Your task to perform on an android device: turn on notifications settings in the gmail app Image 0: 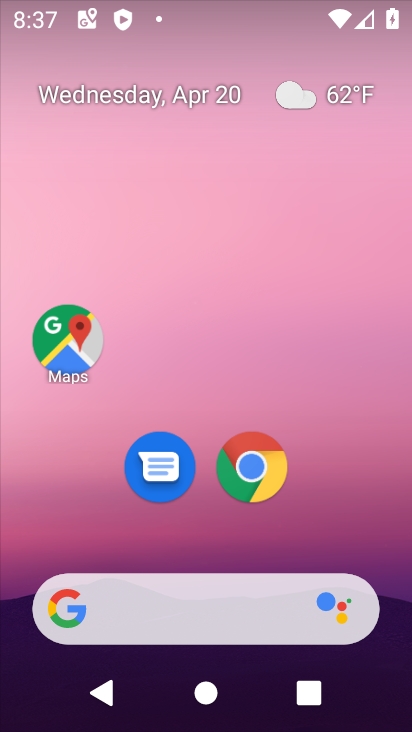
Step 0: drag from (254, 679) to (202, 230)
Your task to perform on an android device: turn on notifications settings in the gmail app Image 1: 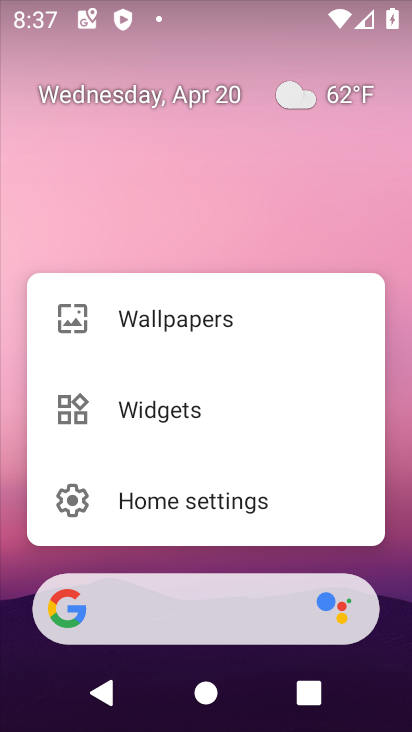
Step 1: click (223, 216)
Your task to perform on an android device: turn on notifications settings in the gmail app Image 2: 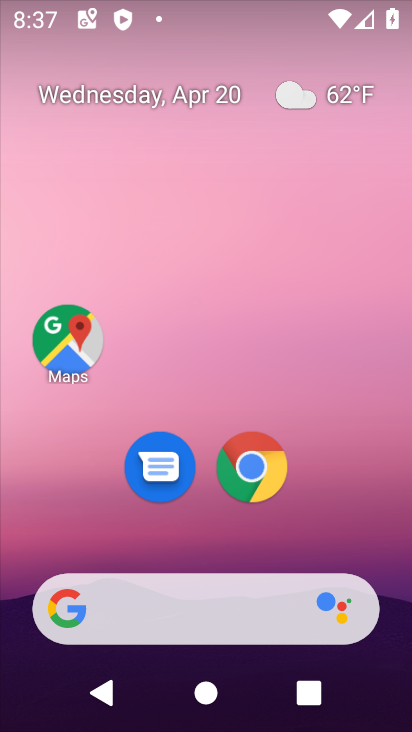
Step 2: drag from (319, 435) to (236, 5)
Your task to perform on an android device: turn on notifications settings in the gmail app Image 3: 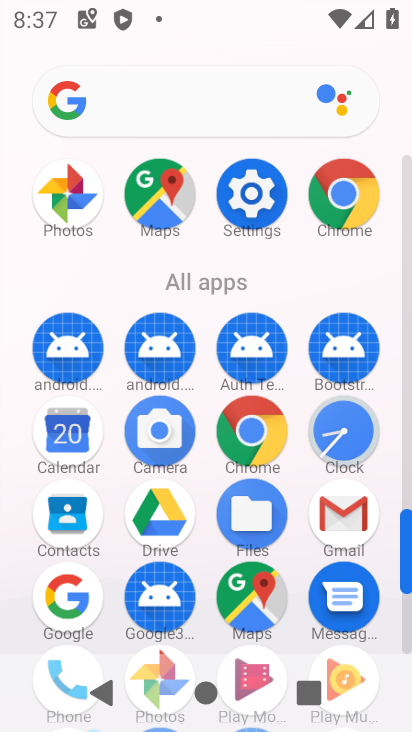
Step 3: click (351, 499)
Your task to perform on an android device: turn on notifications settings in the gmail app Image 4: 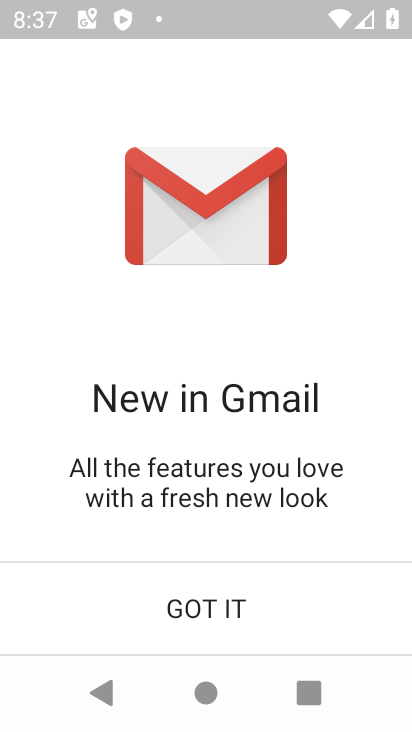
Step 4: click (229, 600)
Your task to perform on an android device: turn on notifications settings in the gmail app Image 5: 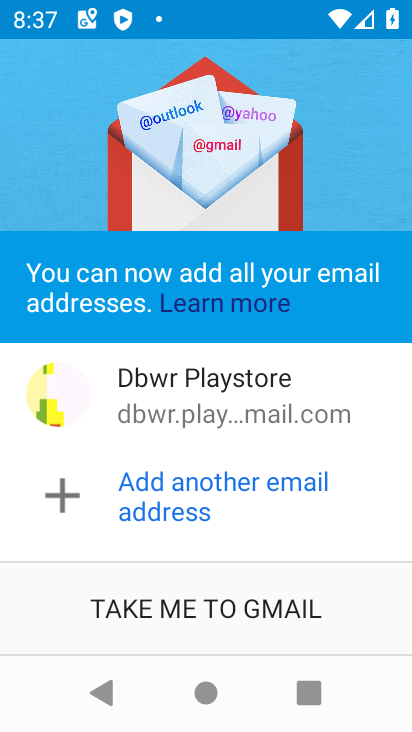
Step 5: click (223, 598)
Your task to perform on an android device: turn on notifications settings in the gmail app Image 6: 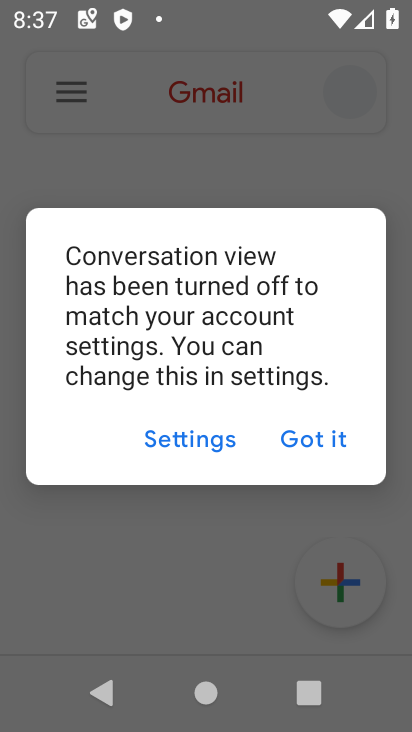
Step 6: click (233, 610)
Your task to perform on an android device: turn on notifications settings in the gmail app Image 7: 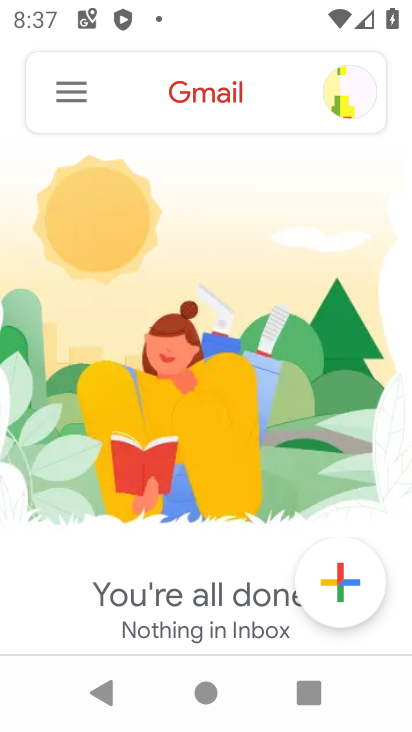
Step 7: click (303, 442)
Your task to perform on an android device: turn on notifications settings in the gmail app Image 8: 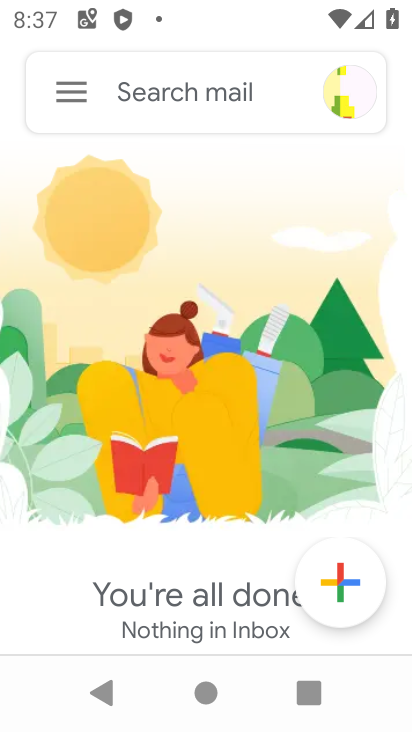
Step 8: click (73, 84)
Your task to perform on an android device: turn on notifications settings in the gmail app Image 9: 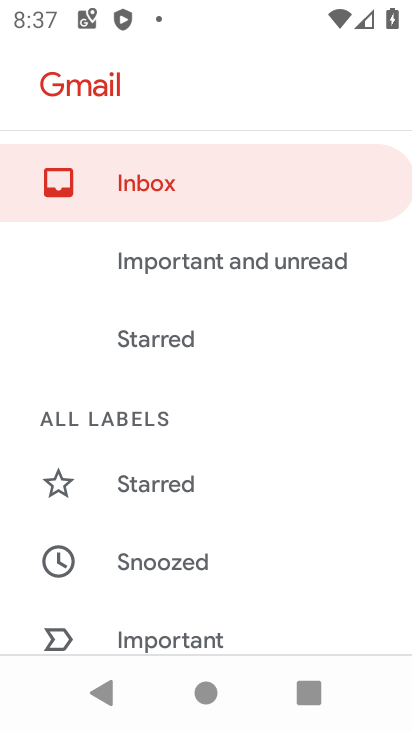
Step 9: drag from (168, 581) to (86, 72)
Your task to perform on an android device: turn on notifications settings in the gmail app Image 10: 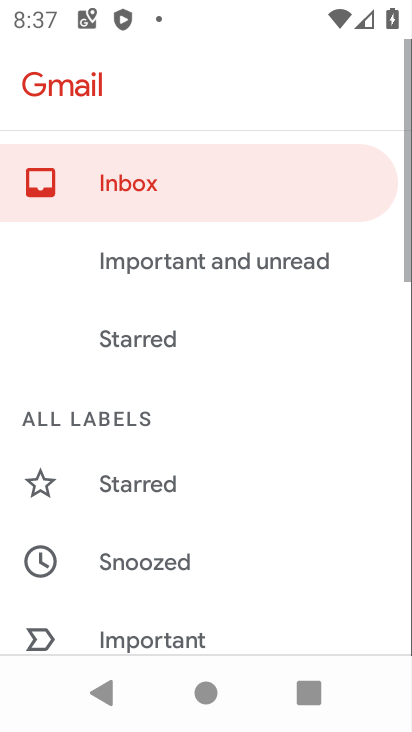
Step 10: drag from (116, 525) to (119, 233)
Your task to perform on an android device: turn on notifications settings in the gmail app Image 11: 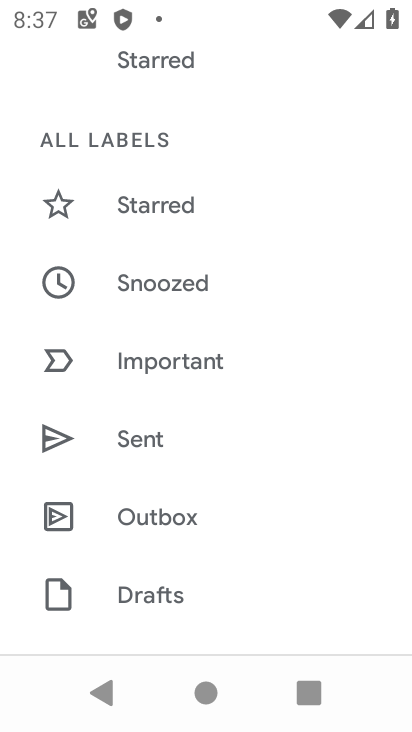
Step 11: drag from (175, 496) to (170, 240)
Your task to perform on an android device: turn on notifications settings in the gmail app Image 12: 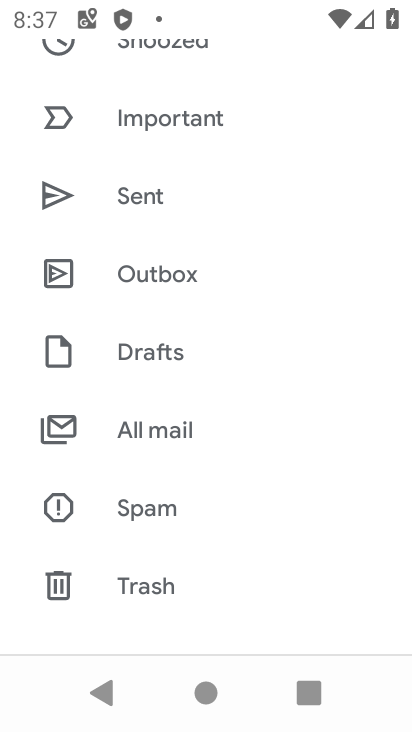
Step 12: click (151, 425)
Your task to perform on an android device: turn on notifications settings in the gmail app Image 13: 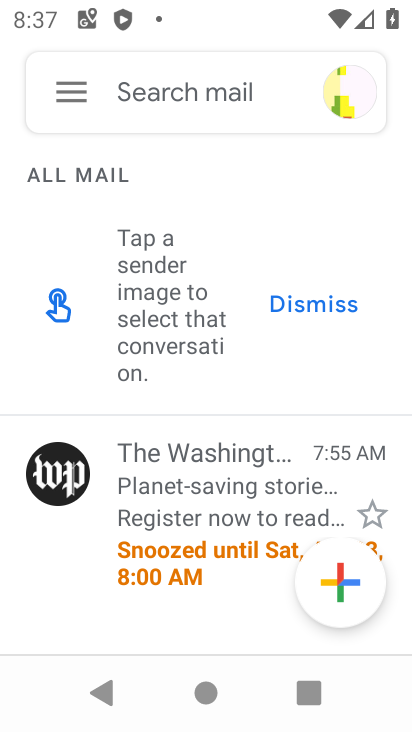
Step 13: click (70, 93)
Your task to perform on an android device: turn on notifications settings in the gmail app Image 14: 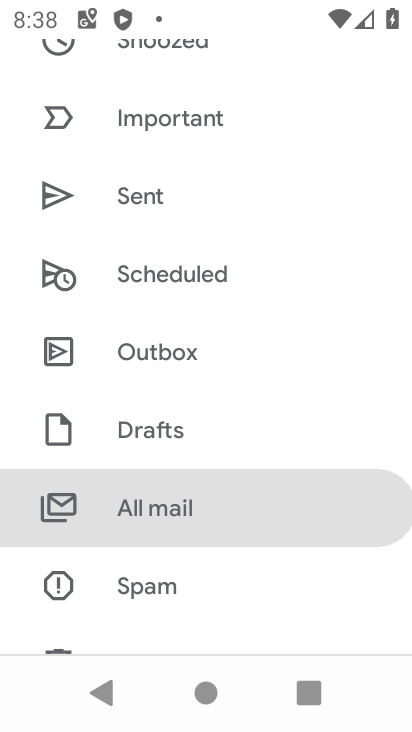
Step 14: drag from (259, 514) to (267, 43)
Your task to perform on an android device: turn on notifications settings in the gmail app Image 15: 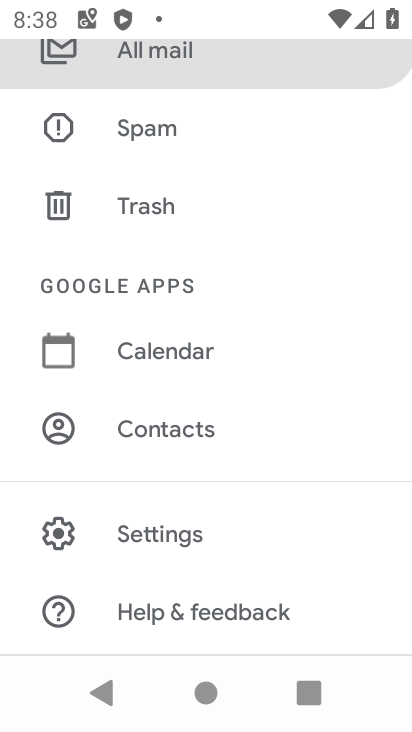
Step 15: drag from (184, 425) to (125, 143)
Your task to perform on an android device: turn on notifications settings in the gmail app Image 16: 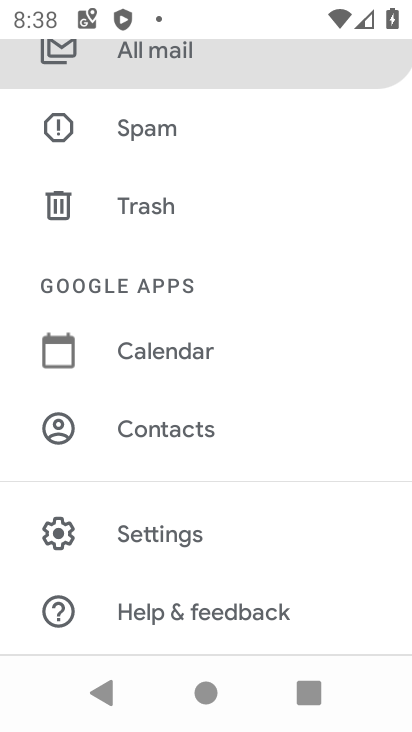
Step 16: click (152, 531)
Your task to perform on an android device: turn on notifications settings in the gmail app Image 17: 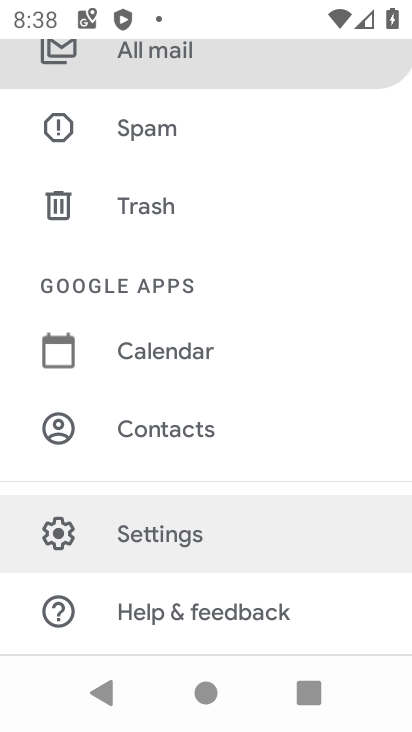
Step 17: click (152, 531)
Your task to perform on an android device: turn on notifications settings in the gmail app Image 18: 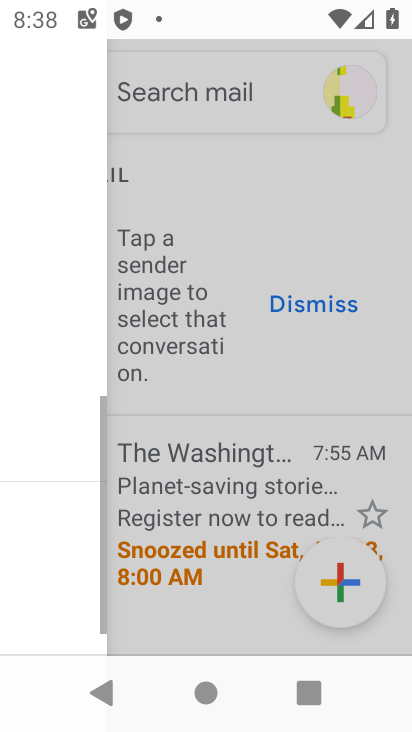
Step 18: click (152, 531)
Your task to perform on an android device: turn on notifications settings in the gmail app Image 19: 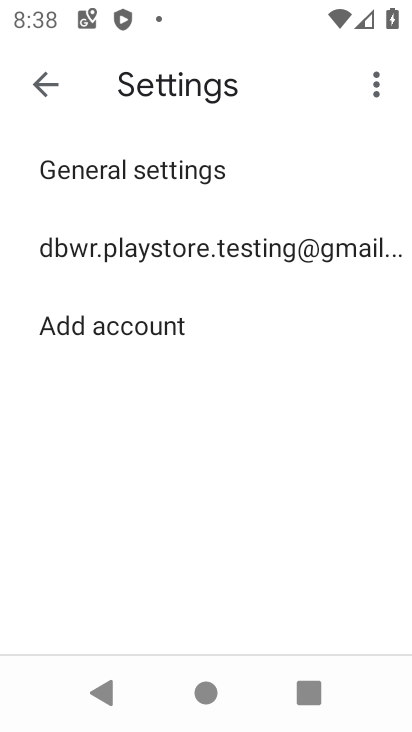
Step 19: click (144, 245)
Your task to perform on an android device: turn on notifications settings in the gmail app Image 20: 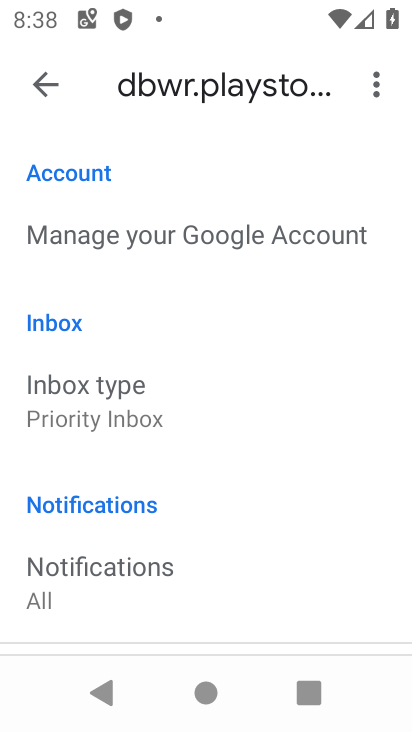
Step 20: drag from (174, 535) to (103, 197)
Your task to perform on an android device: turn on notifications settings in the gmail app Image 21: 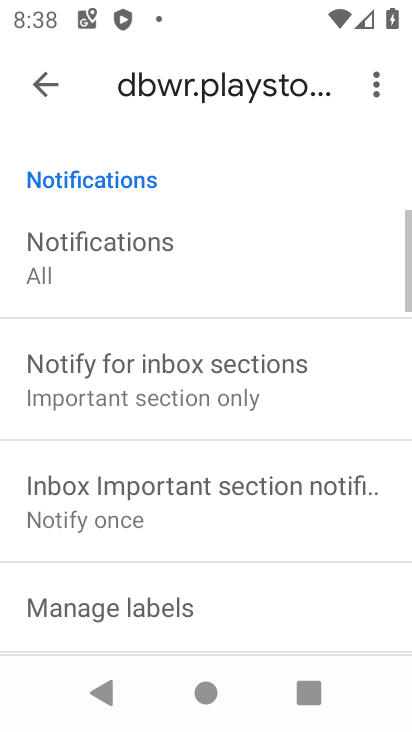
Step 21: click (82, 231)
Your task to perform on an android device: turn on notifications settings in the gmail app Image 22: 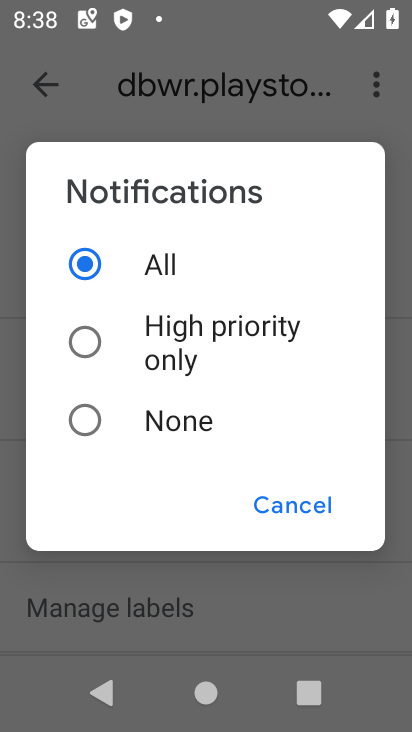
Step 22: task complete